Your task to perform on an android device: Search for flights from Sydney to Helsinki Image 0: 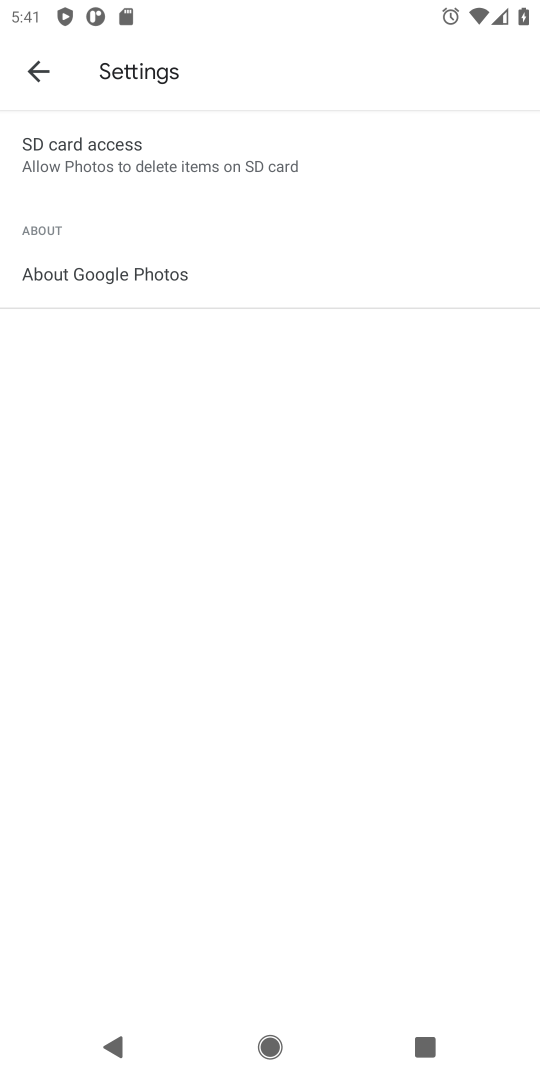
Step 0: press home button
Your task to perform on an android device: Search for flights from Sydney to Helsinki Image 1: 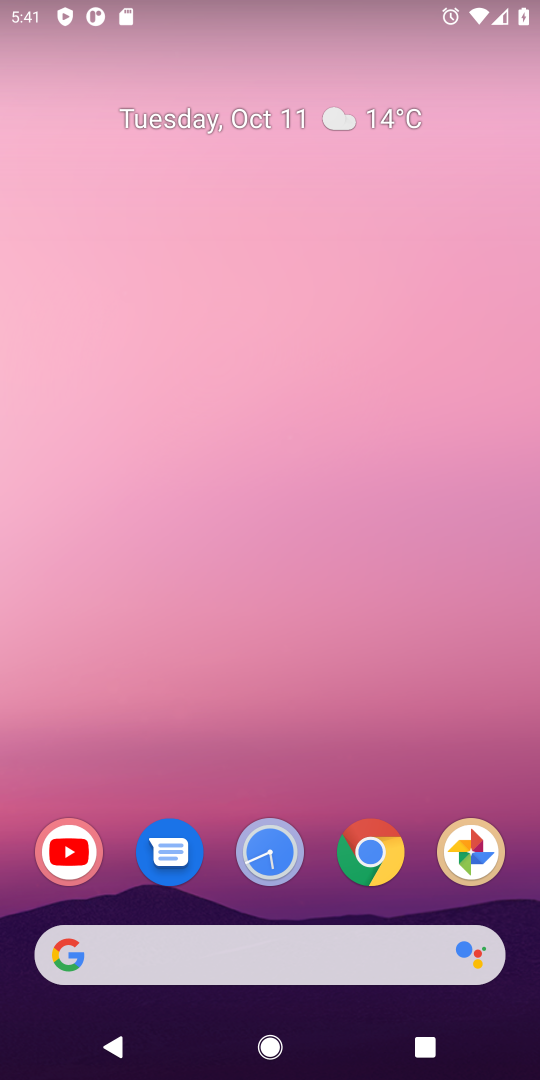
Step 1: click (368, 853)
Your task to perform on an android device: Search for flights from Sydney to Helsinki Image 2: 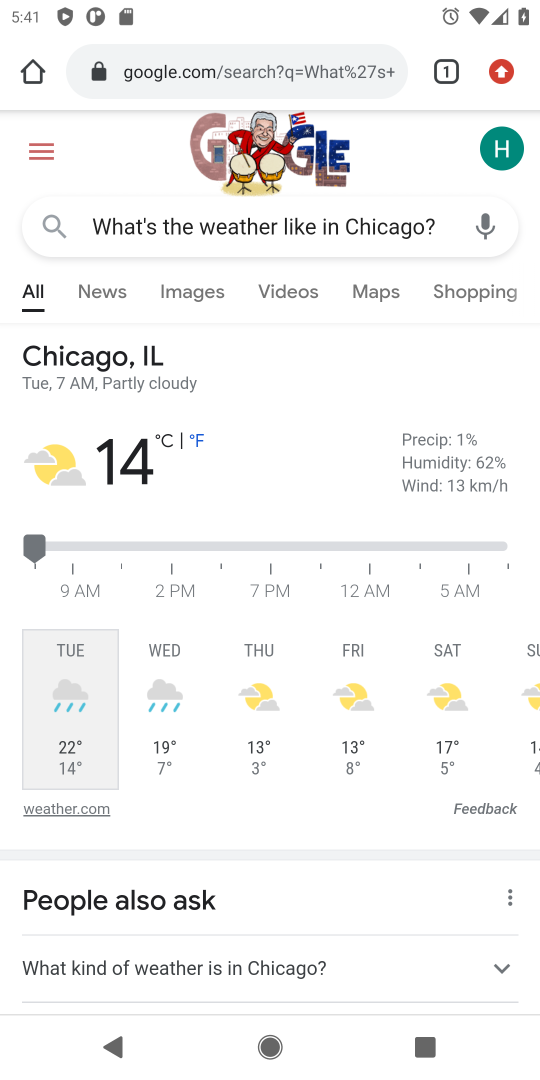
Step 2: click (212, 65)
Your task to perform on an android device: Search for flights from Sydney to Helsinki Image 3: 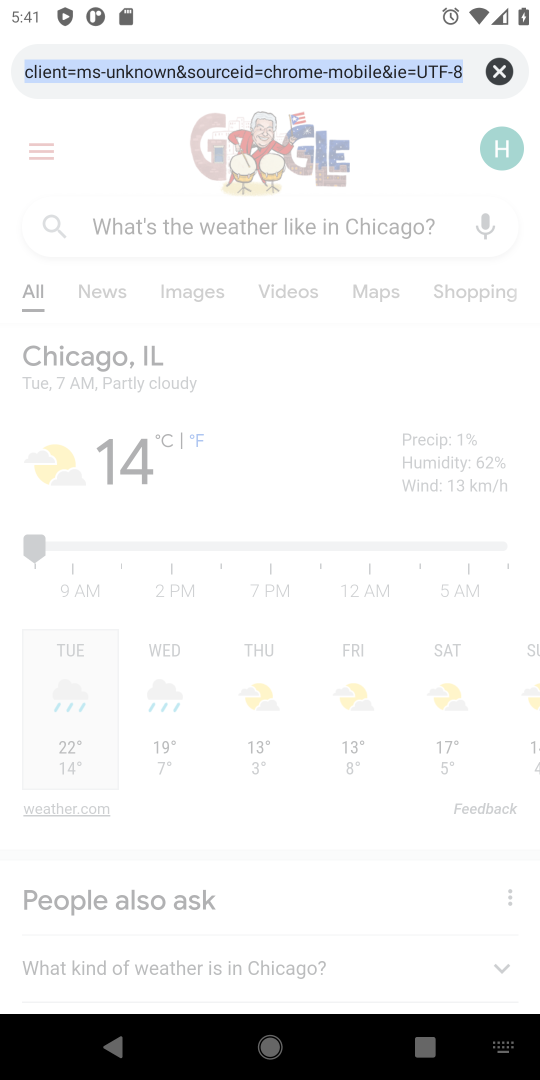
Step 3: type "flights from Sydney to Helsinki"
Your task to perform on an android device: Search for flights from Sydney to Helsinki Image 4: 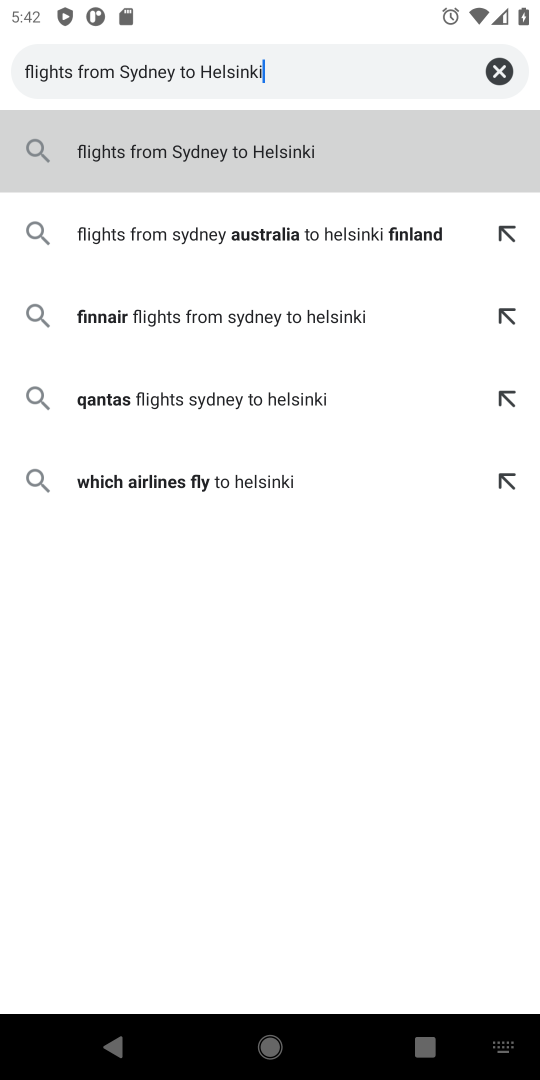
Step 4: click (341, 161)
Your task to perform on an android device: Search for flights from Sydney to Helsinki Image 5: 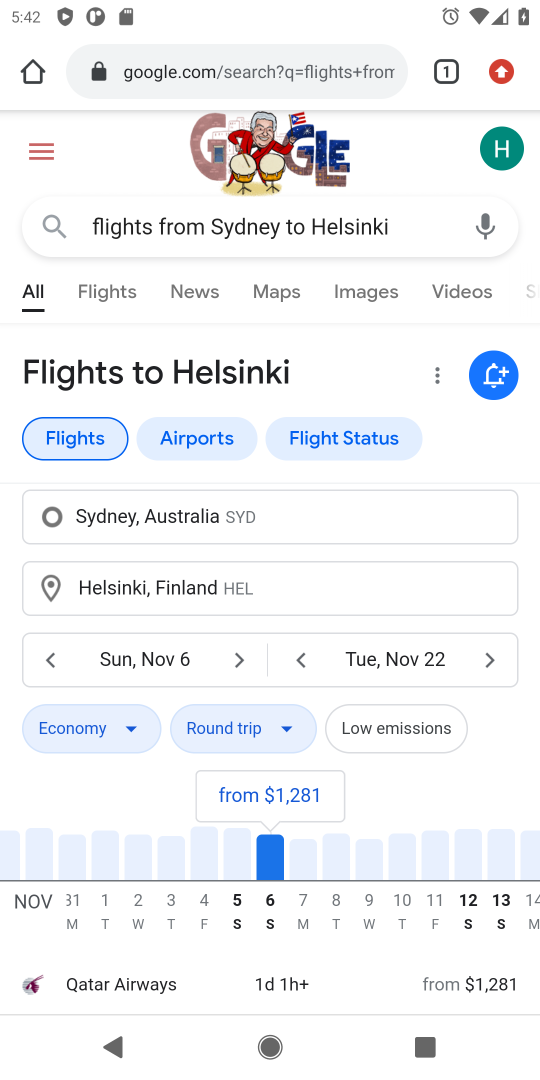
Step 5: task complete